Your task to perform on an android device: open app "Microsoft Outlook" Image 0: 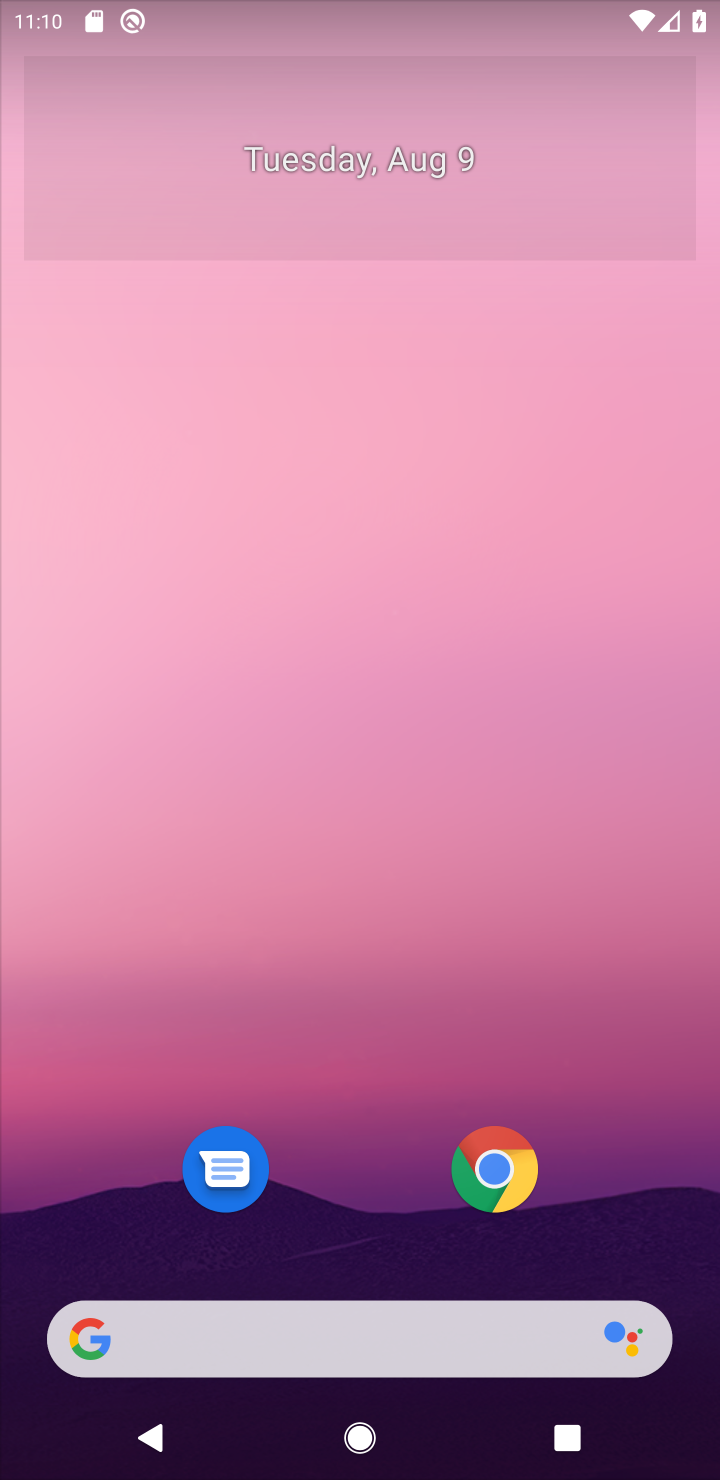
Step 0: press home button
Your task to perform on an android device: open app "Microsoft Outlook" Image 1: 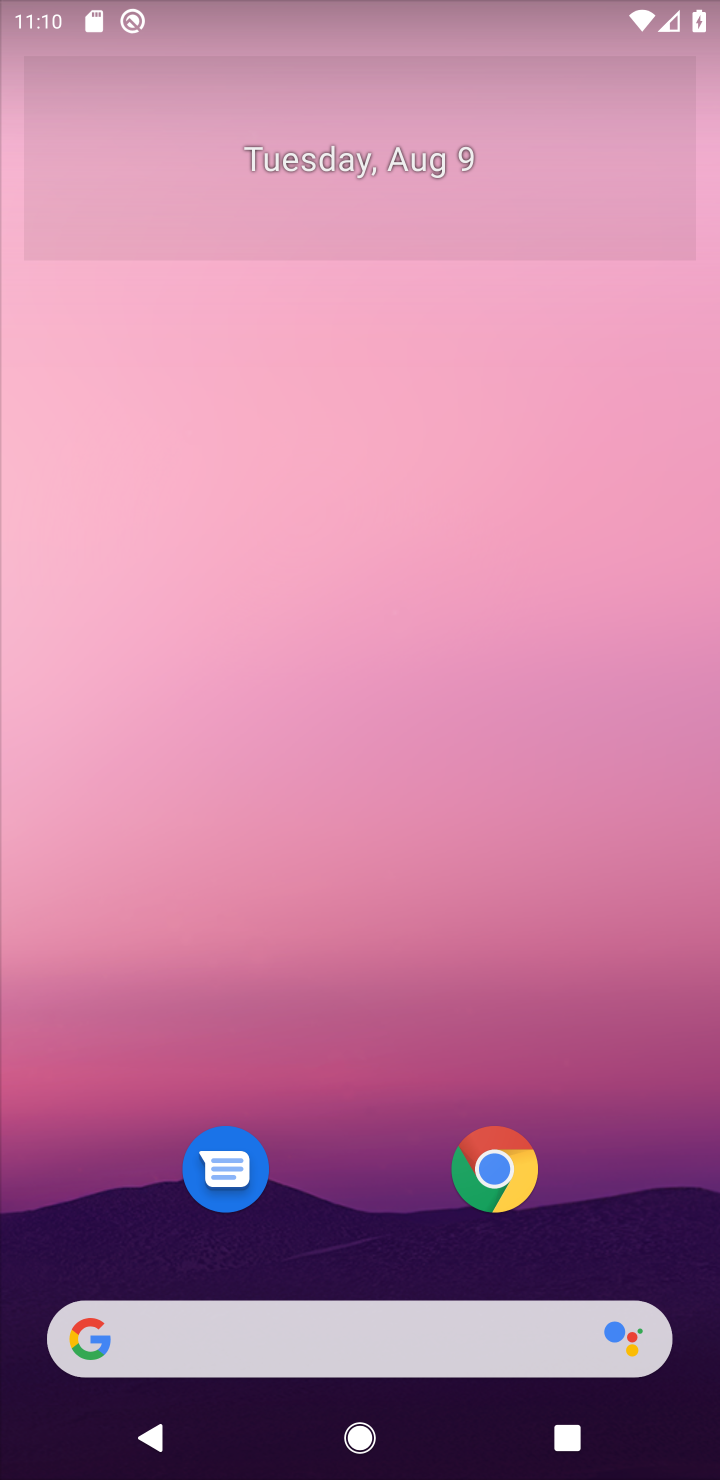
Step 1: drag from (637, 1131) to (478, 89)
Your task to perform on an android device: open app "Microsoft Outlook" Image 2: 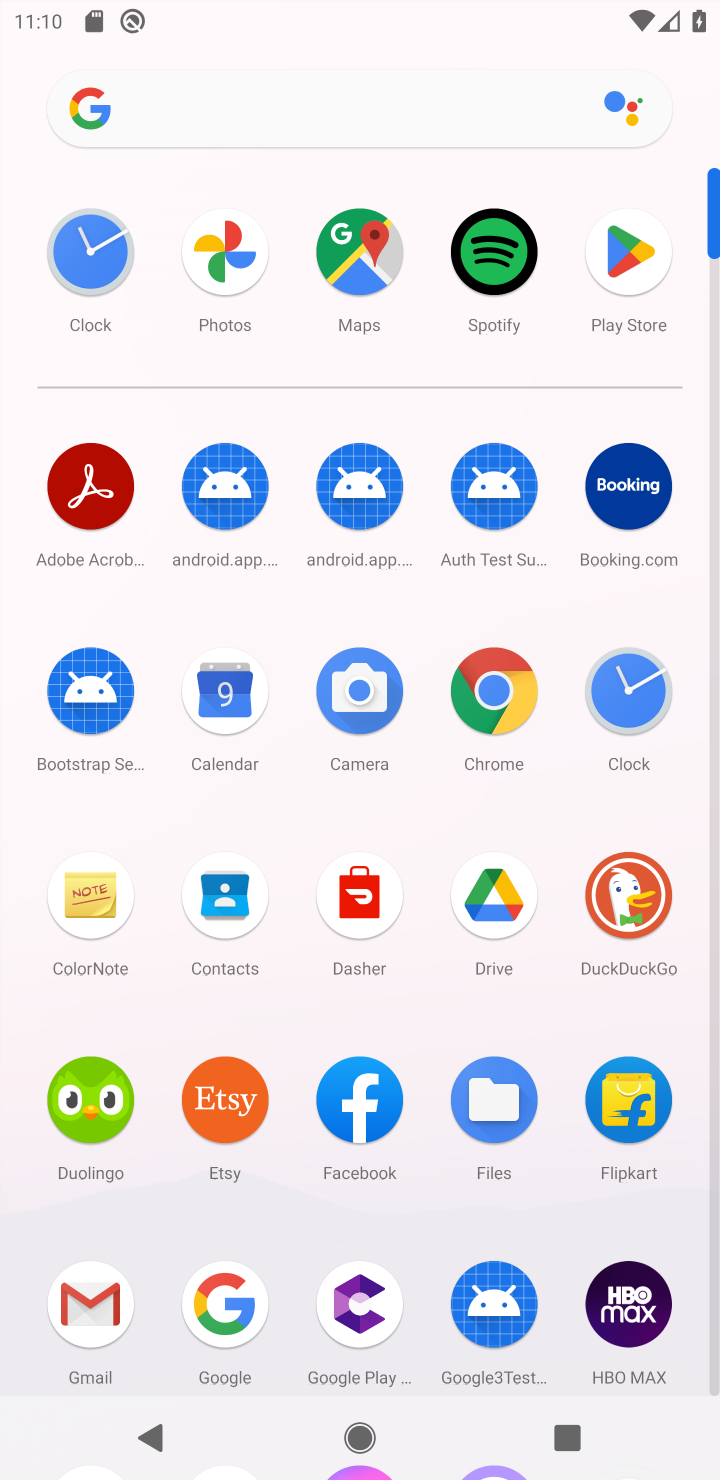
Step 2: click (627, 228)
Your task to perform on an android device: open app "Microsoft Outlook" Image 3: 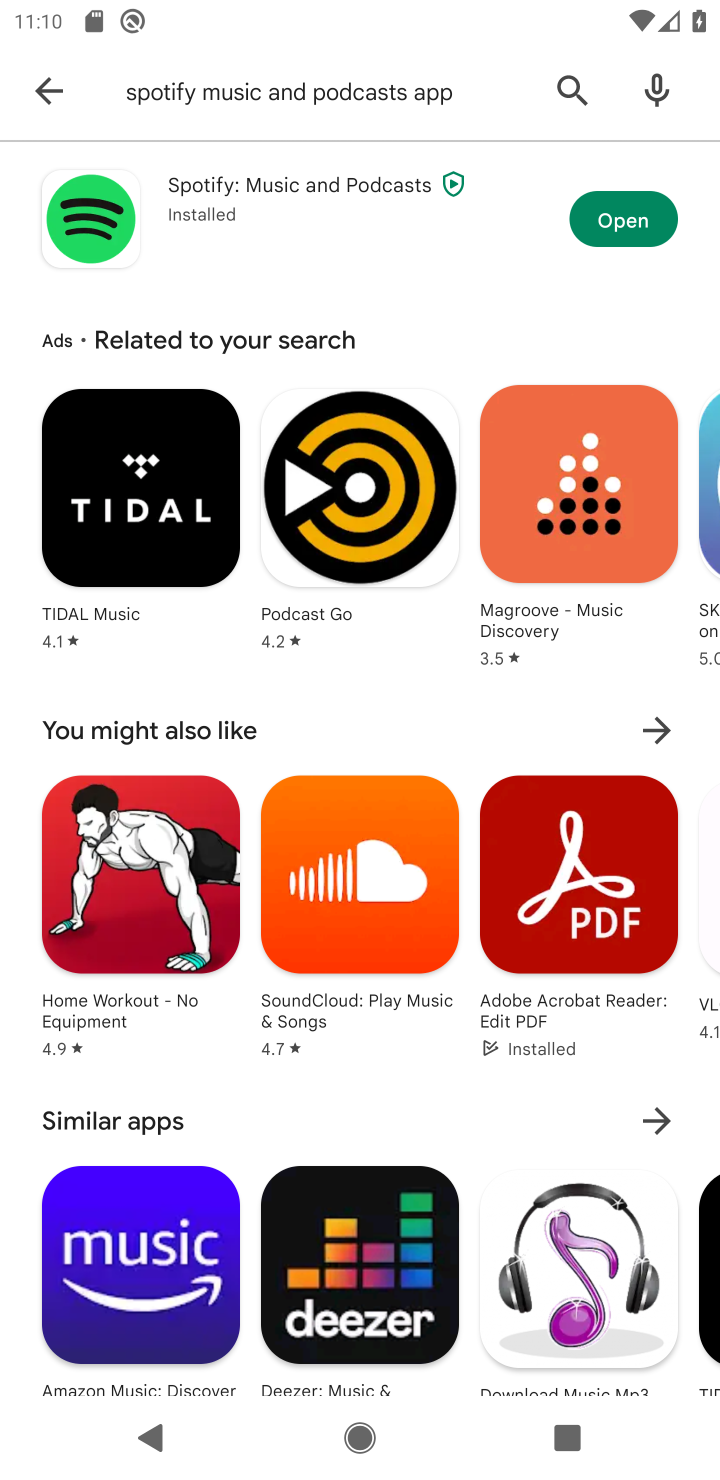
Step 3: click (559, 90)
Your task to perform on an android device: open app "Microsoft Outlook" Image 4: 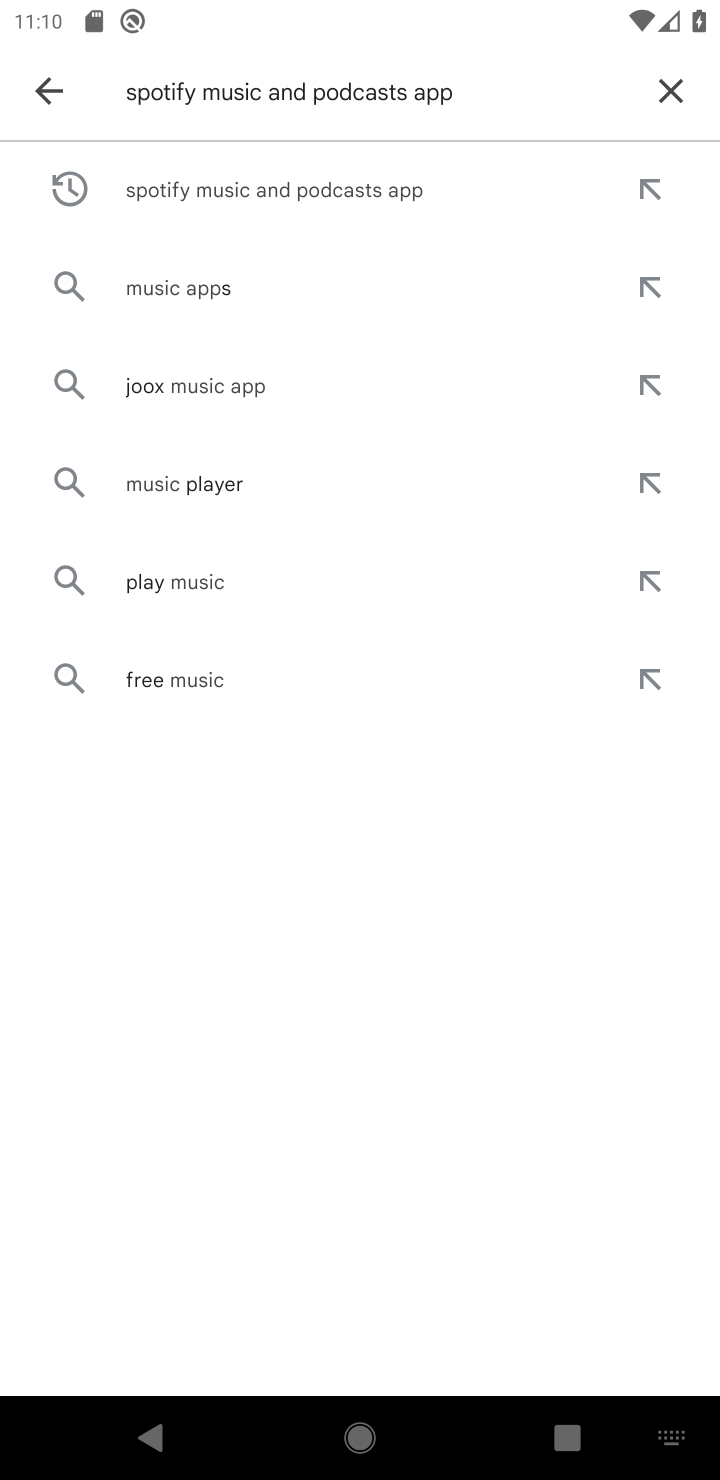
Step 4: click (650, 80)
Your task to perform on an android device: open app "Microsoft Outlook" Image 5: 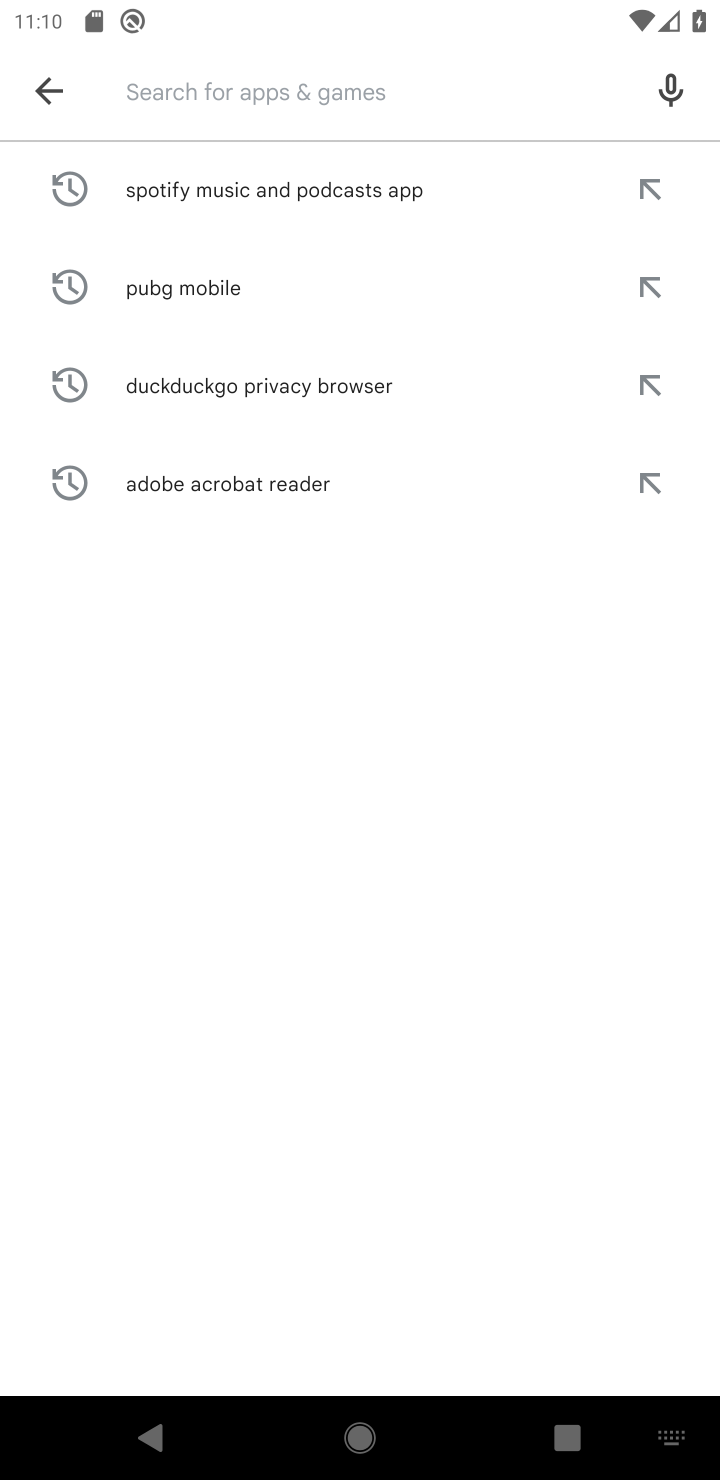
Step 5: type "microsoft outlook"
Your task to perform on an android device: open app "Microsoft Outlook" Image 6: 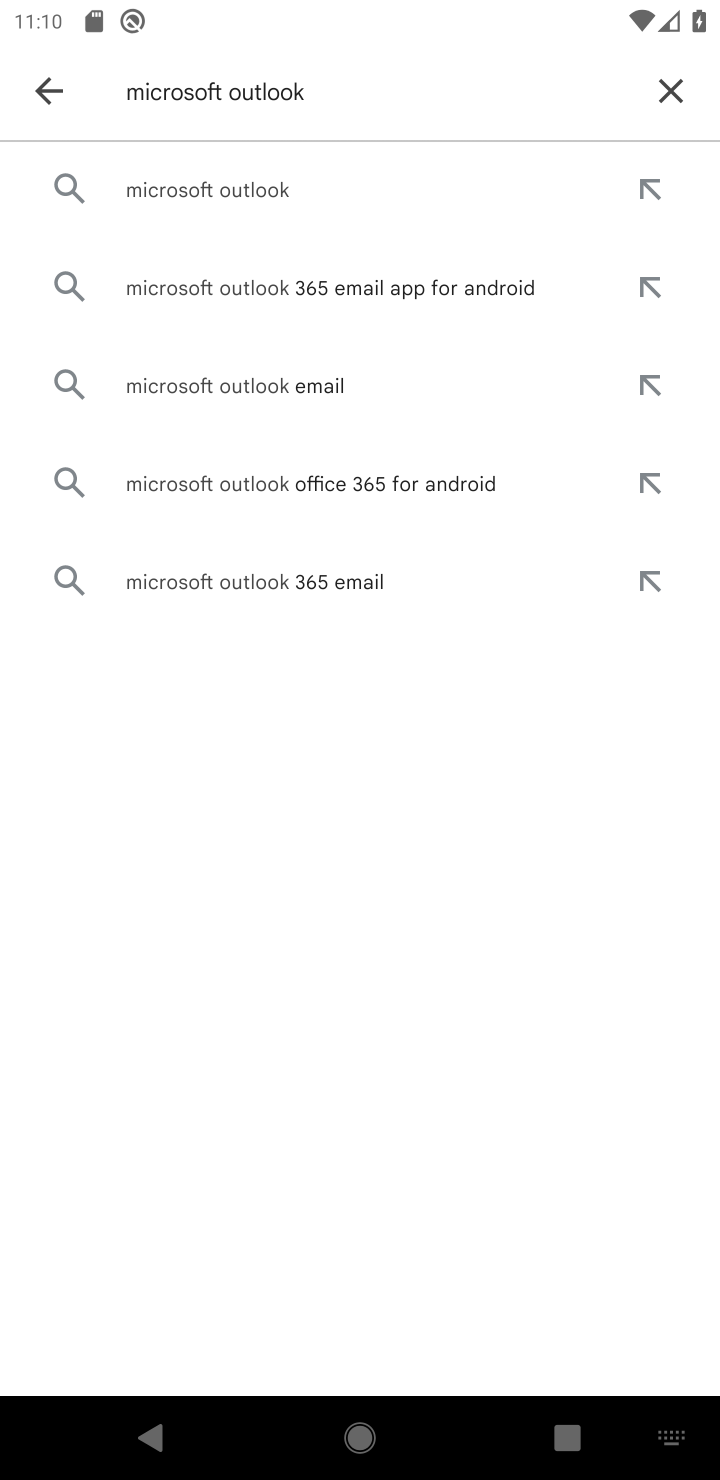
Step 6: click (287, 201)
Your task to perform on an android device: open app "Microsoft Outlook" Image 7: 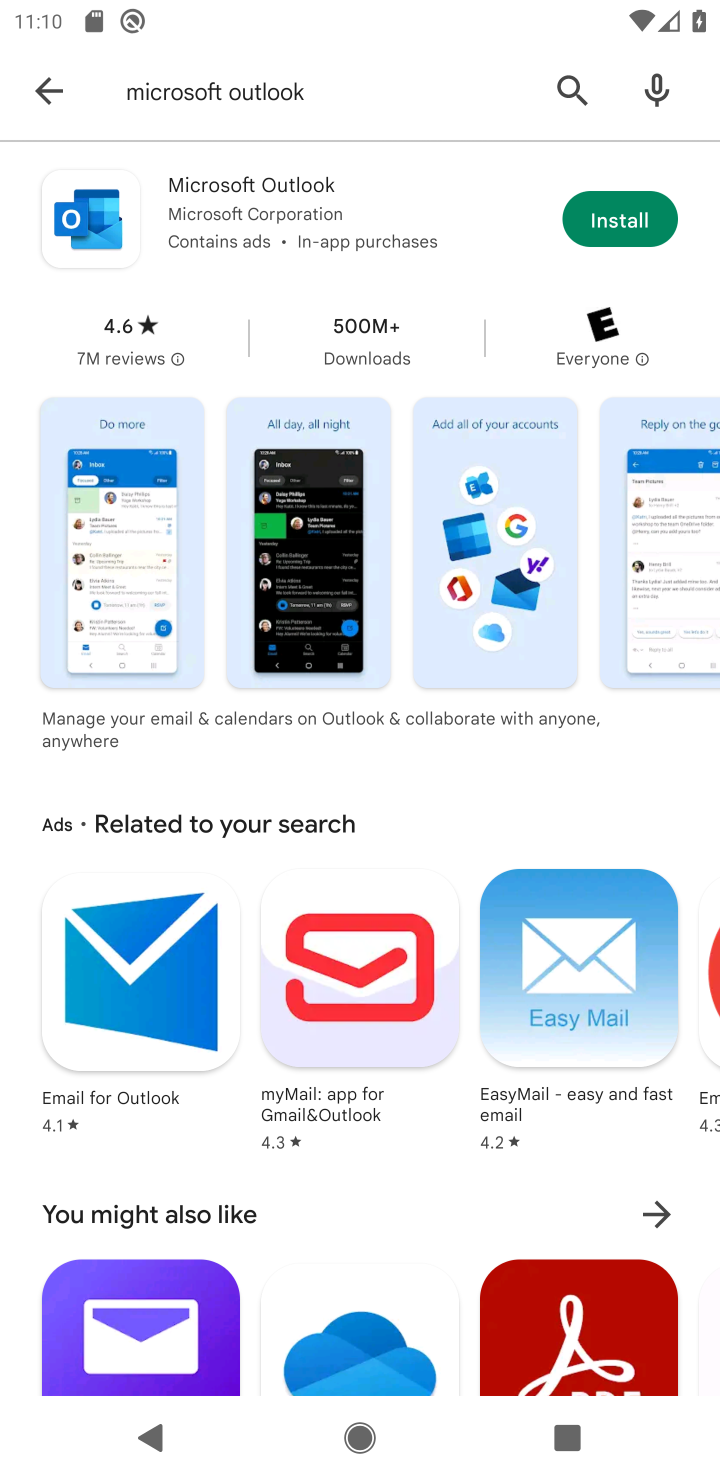
Step 7: task complete